Your task to perform on an android device: turn off notifications in google photos Image 0: 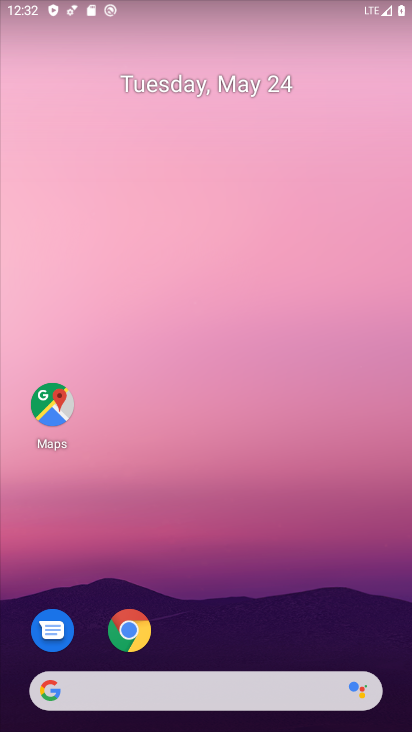
Step 0: drag from (333, 586) to (308, 226)
Your task to perform on an android device: turn off notifications in google photos Image 1: 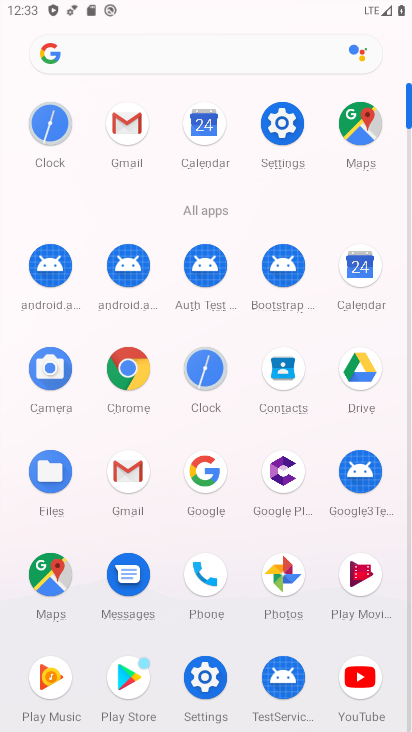
Step 1: click (276, 575)
Your task to perform on an android device: turn off notifications in google photos Image 2: 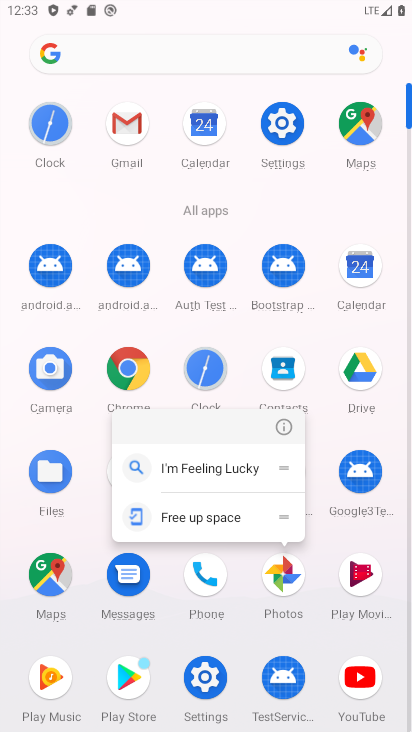
Step 2: click (293, 575)
Your task to perform on an android device: turn off notifications in google photos Image 3: 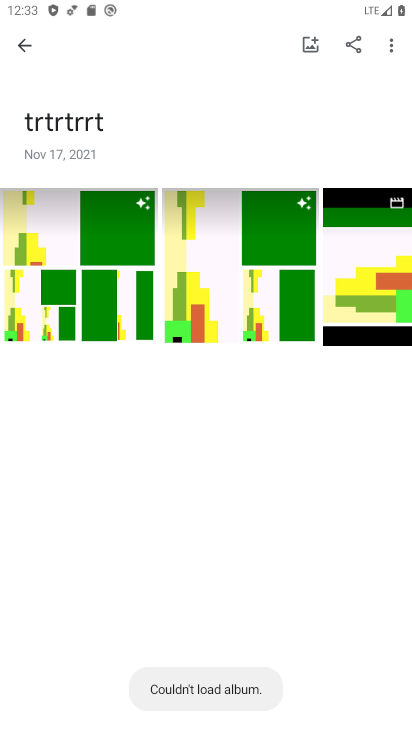
Step 3: press back button
Your task to perform on an android device: turn off notifications in google photos Image 4: 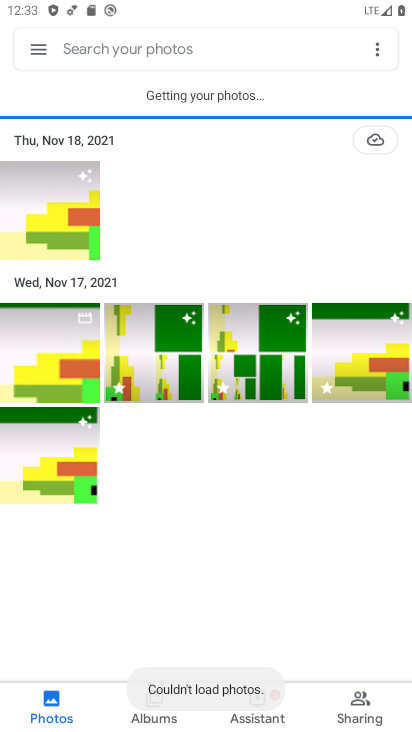
Step 4: press back button
Your task to perform on an android device: turn off notifications in google photos Image 5: 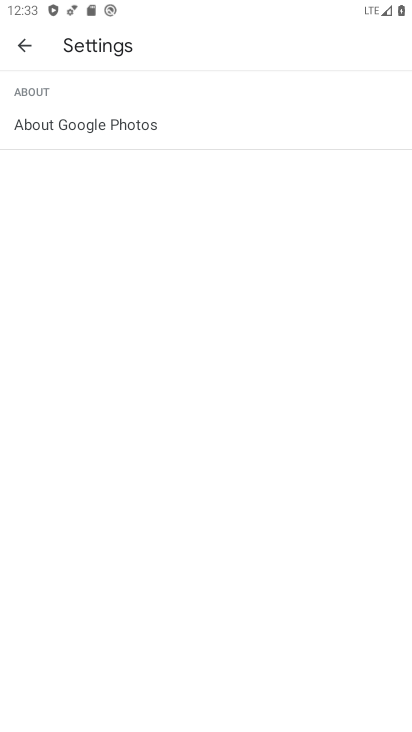
Step 5: press back button
Your task to perform on an android device: turn off notifications in google photos Image 6: 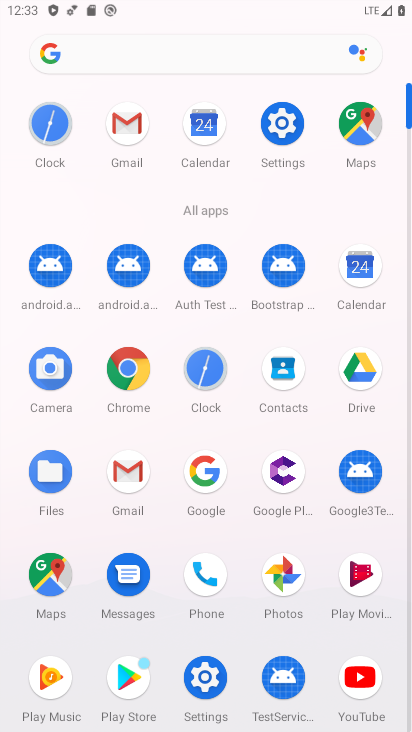
Step 6: click (288, 584)
Your task to perform on an android device: turn off notifications in google photos Image 7: 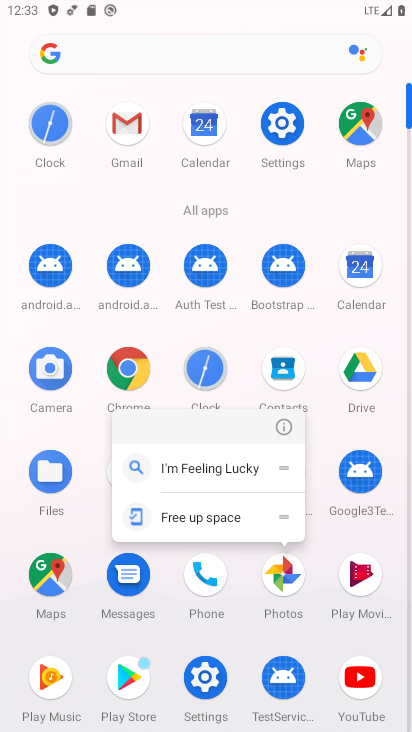
Step 7: click (284, 425)
Your task to perform on an android device: turn off notifications in google photos Image 8: 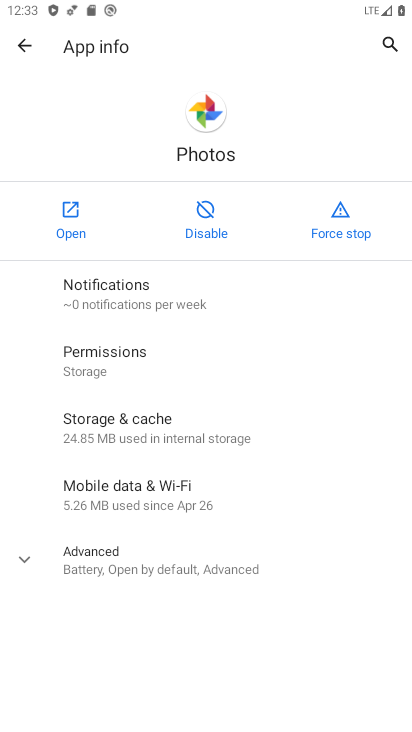
Step 8: click (103, 286)
Your task to perform on an android device: turn off notifications in google photos Image 9: 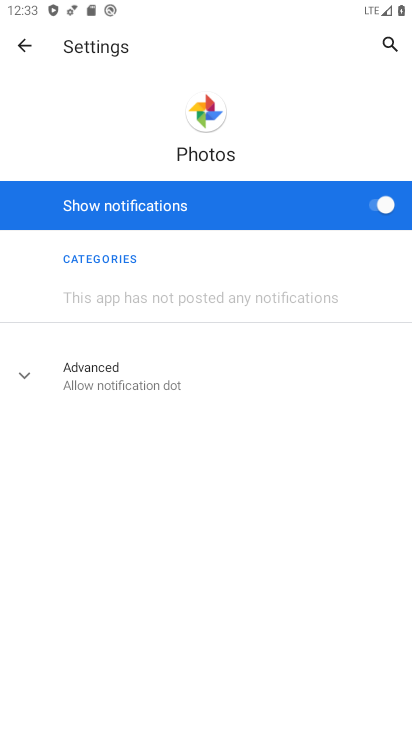
Step 9: click (378, 217)
Your task to perform on an android device: turn off notifications in google photos Image 10: 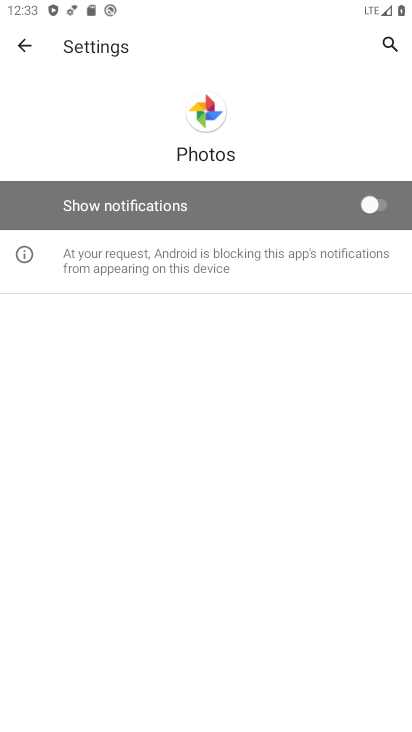
Step 10: task complete